Your task to perform on an android device: Open the calendar and show me this week's events Image 0: 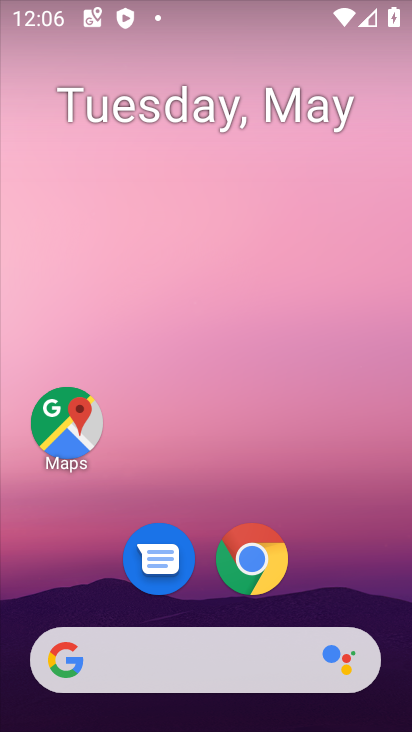
Step 0: drag from (357, 571) to (345, 104)
Your task to perform on an android device: Open the calendar and show me this week's events Image 1: 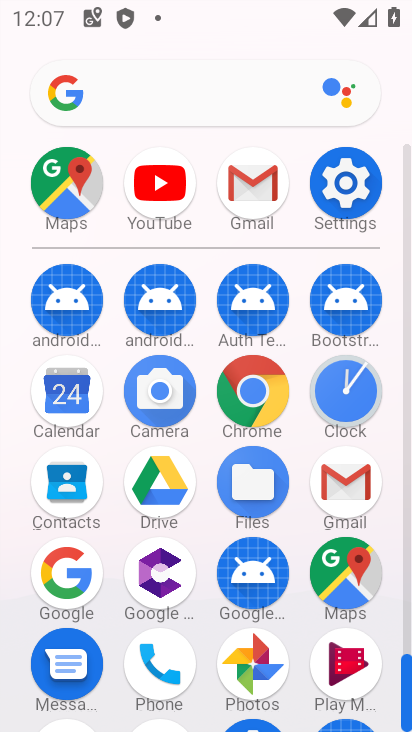
Step 1: click (364, 203)
Your task to perform on an android device: Open the calendar and show me this week's events Image 2: 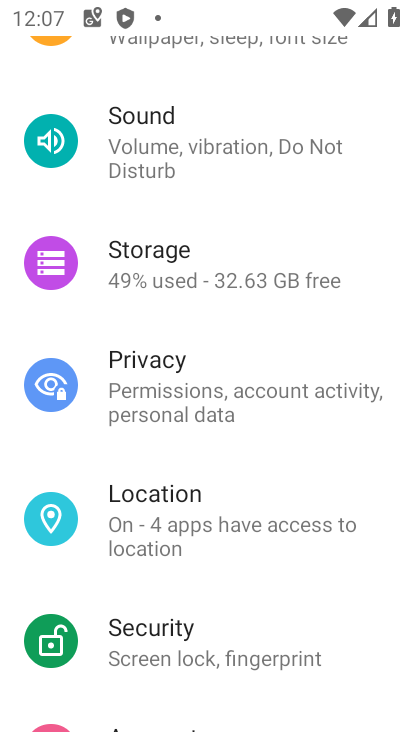
Step 2: press home button
Your task to perform on an android device: Open the calendar and show me this week's events Image 3: 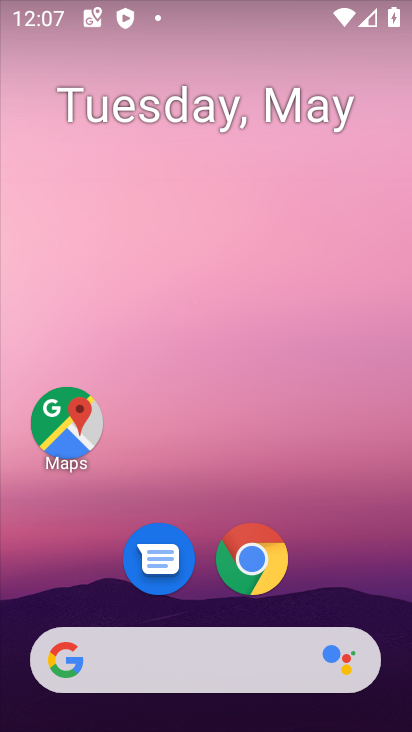
Step 3: drag from (365, 598) to (384, 203)
Your task to perform on an android device: Open the calendar and show me this week's events Image 4: 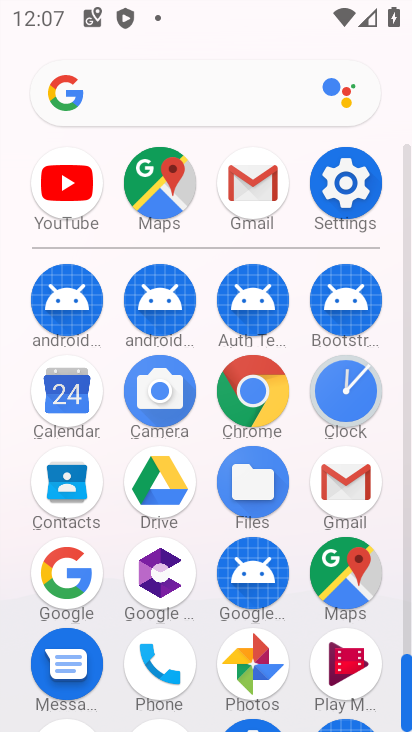
Step 4: click (91, 393)
Your task to perform on an android device: Open the calendar and show me this week's events Image 5: 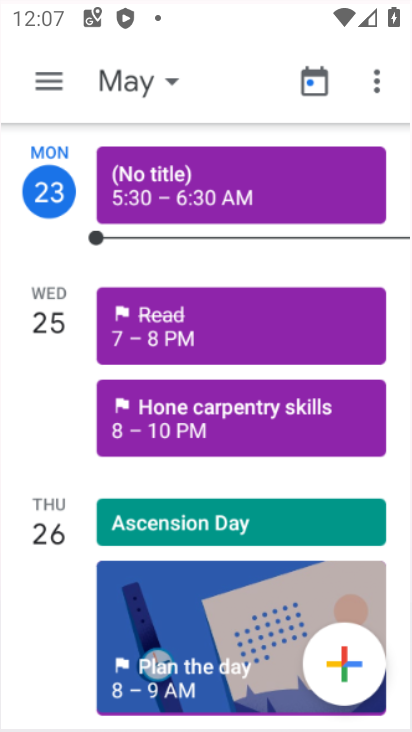
Step 5: task complete